Your task to perform on an android device: see sites visited before in the chrome app Image 0: 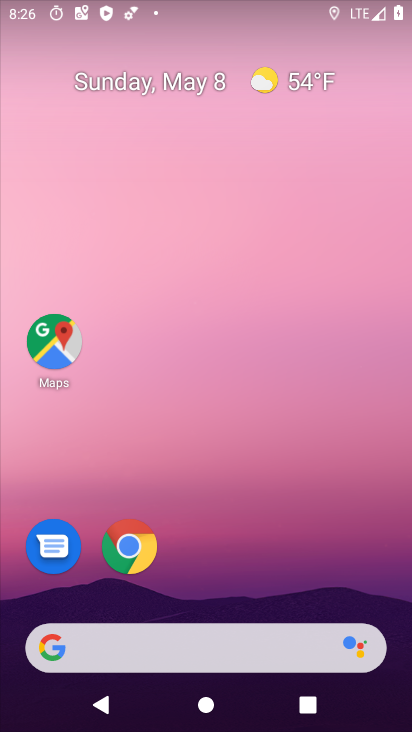
Step 0: click (128, 549)
Your task to perform on an android device: see sites visited before in the chrome app Image 1: 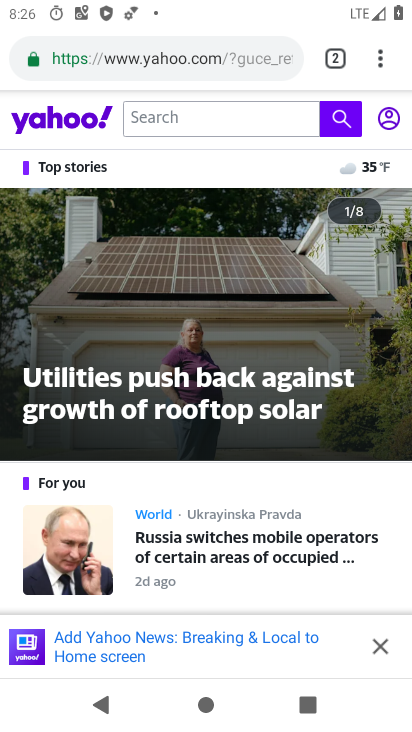
Step 1: click (376, 58)
Your task to perform on an android device: see sites visited before in the chrome app Image 2: 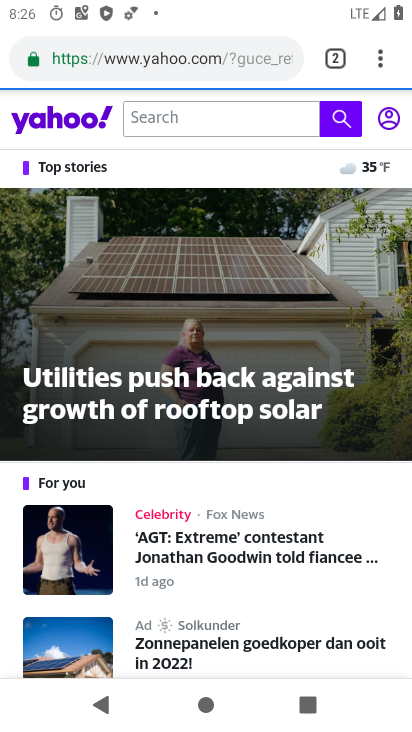
Step 2: click (380, 57)
Your task to perform on an android device: see sites visited before in the chrome app Image 3: 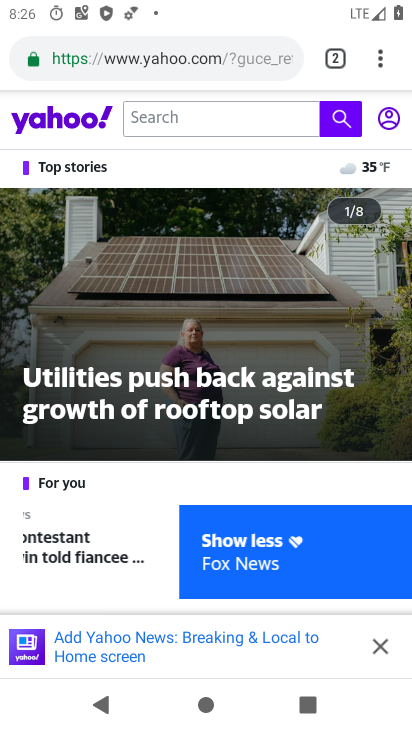
Step 3: click (380, 55)
Your task to perform on an android device: see sites visited before in the chrome app Image 4: 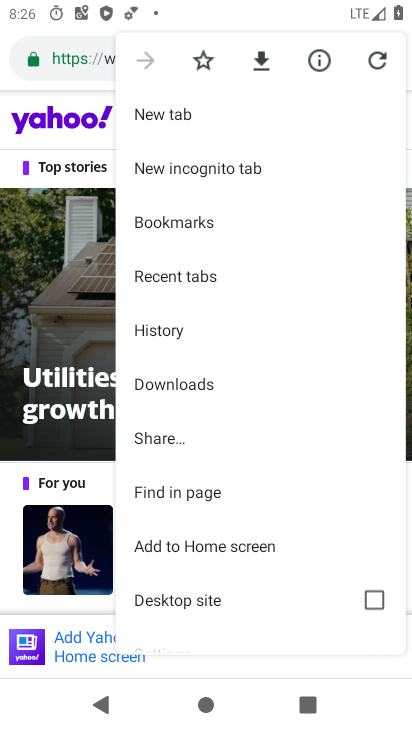
Step 4: click (176, 279)
Your task to perform on an android device: see sites visited before in the chrome app Image 5: 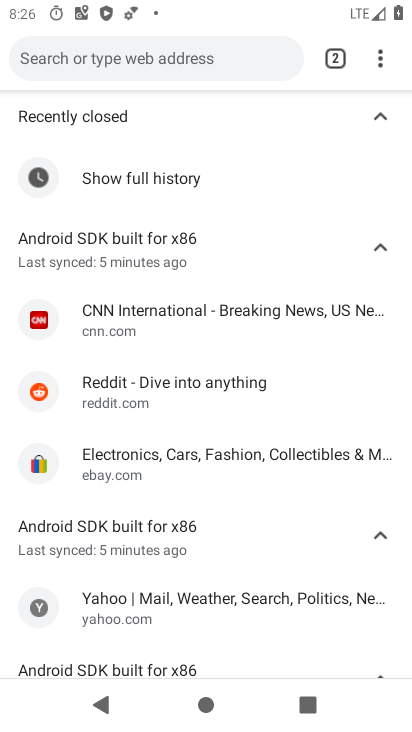
Step 5: task complete